Your task to perform on an android device: Do I have any events tomorrow? Image 0: 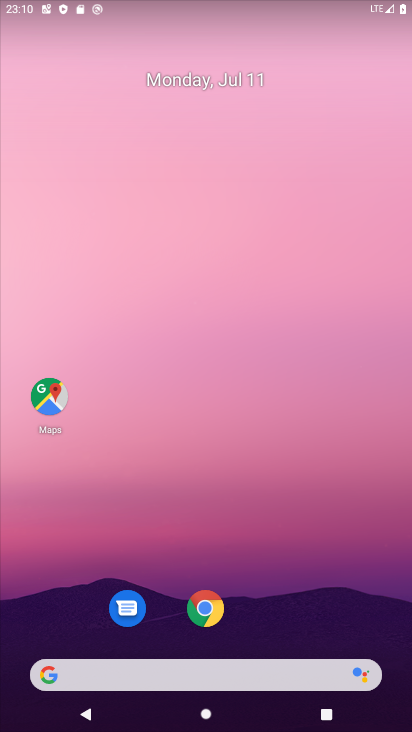
Step 0: drag from (40, 702) to (273, 18)
Your task to perform on an android device: Do I have any events tomorrow? Image 1: 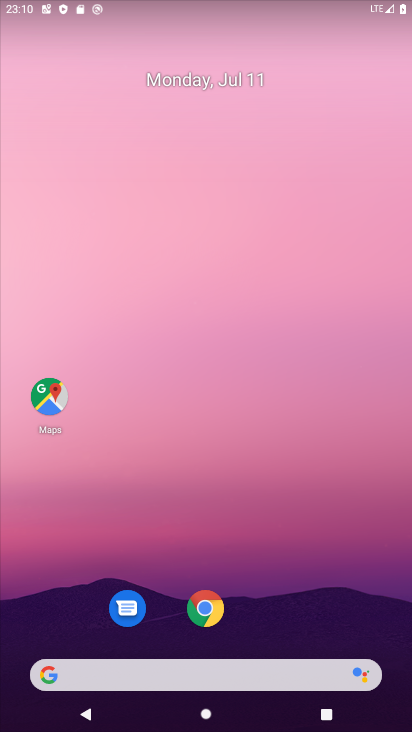
Step 1: drag from (29, 703) to (147, 11)
Your task to perform on an android device: Do I have any events tomorrow? Image 2: 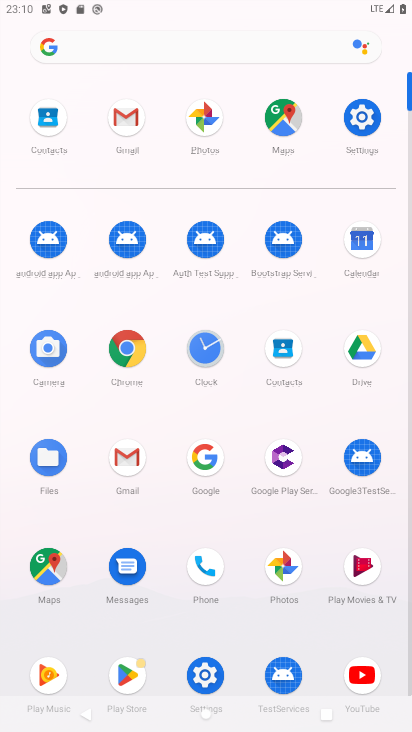
Step 2: click (356, 243)
Your task to perform on an android device: Do I have any events tomorrow? Image 3: 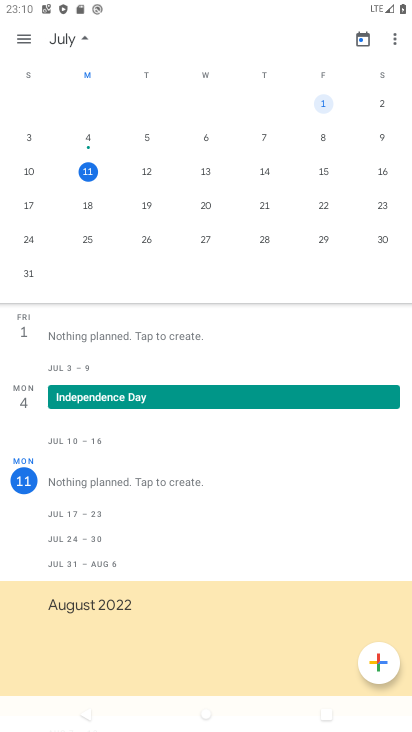
Step 3: task complete